Your task to perform on an android device: Show me popular videos on Youtube Image 0: 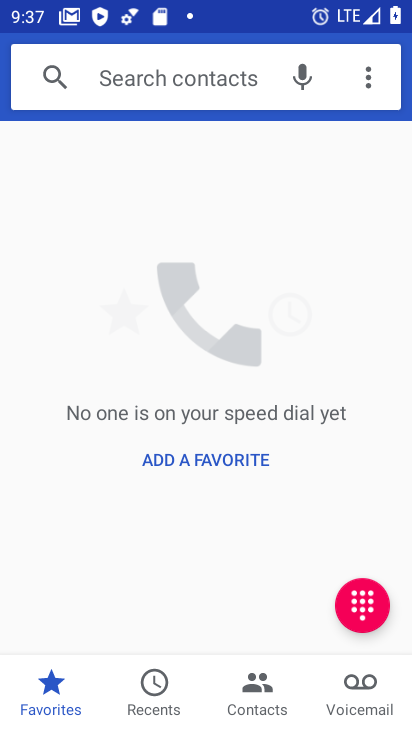
Step 0: press home button
Your task to perform on an android device: Show me popular videos on Youtube Image 1: 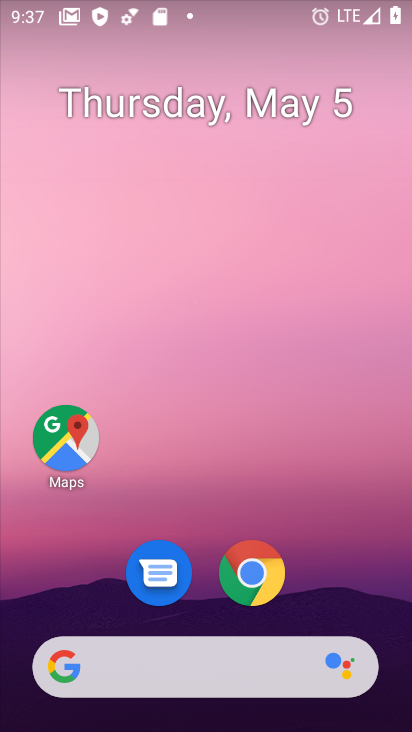
Step 1: drag from (224, 612) to (338, 10)
Your task to perform on an android device: Show me popular videos on Youtube Image 2: 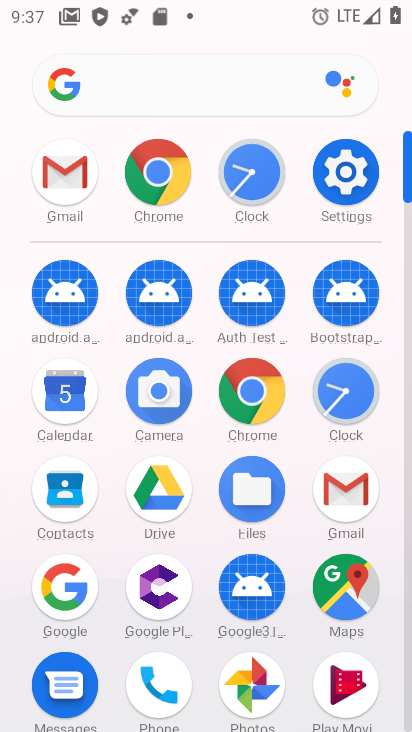
Step 2: drag from (224, 673) to (350, 9)
Your task to perform on an android device: Show me popular videos on Youtube Image 3: 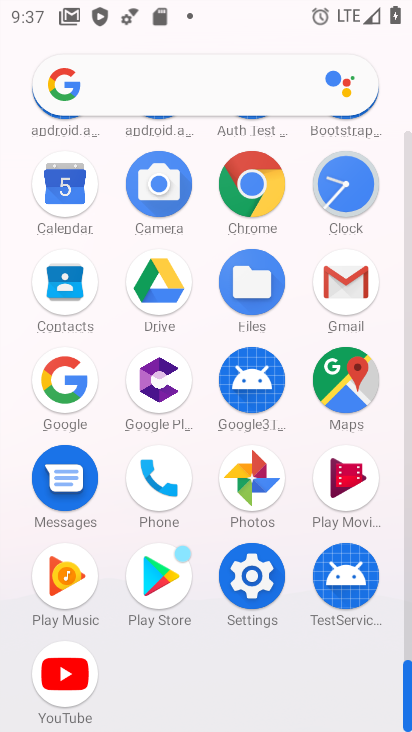
Step 3: click (48, 664)
Your task to perform on an android device: Show me popular videos on Youtube Image 4: 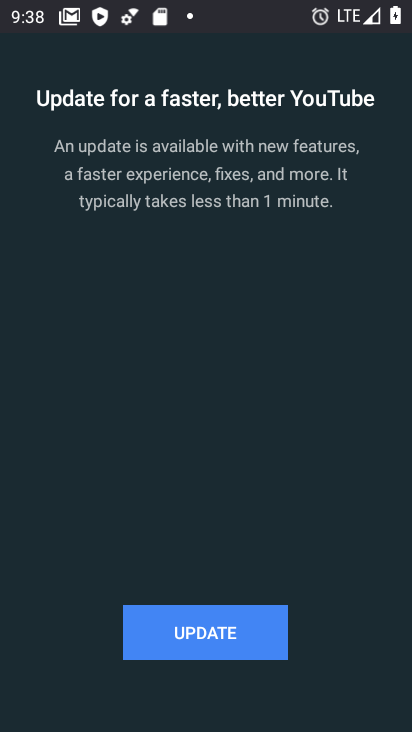
Step 4: click (224, 641)
Your task to perform on an android device: Show me popular videos on Youtube Image 5: 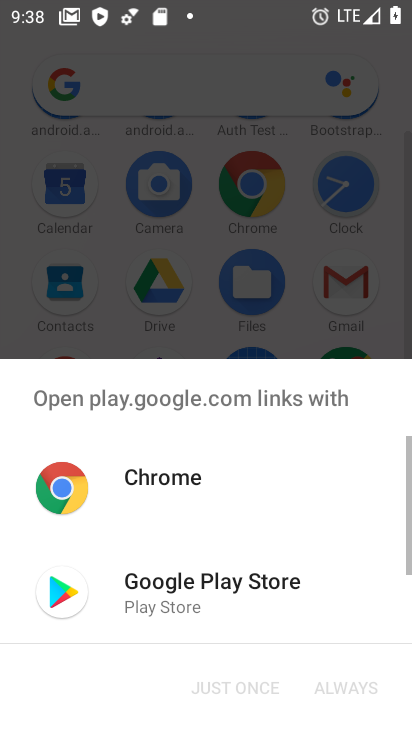
Step 5: click (171, 595)
Your task to perform on an android device: Show me popular videos on Youtube Image 6: 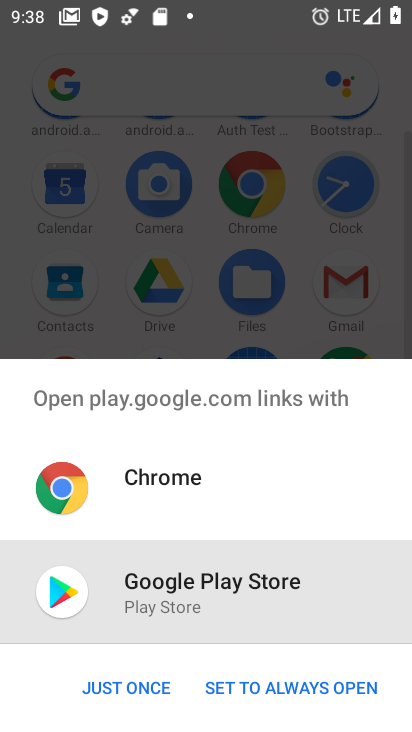
Step 6: click (101, 690)
Your task to perform on an android device: Show me popular videos on Youtube Image 7: 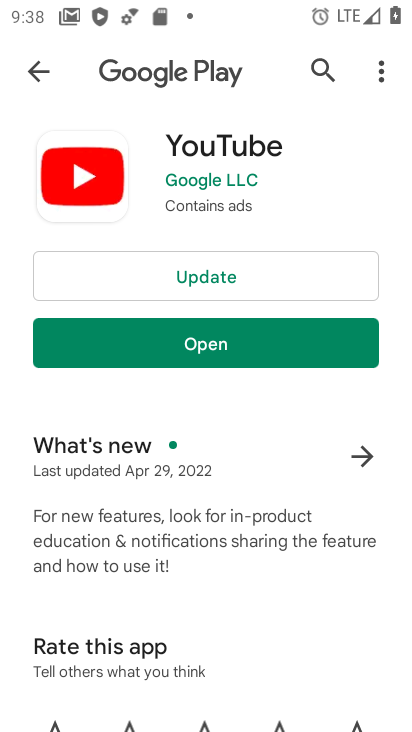
Step 7: click (206, 268)
Your task to perform on an android device: Show me popular videos on Youtube Image 8: 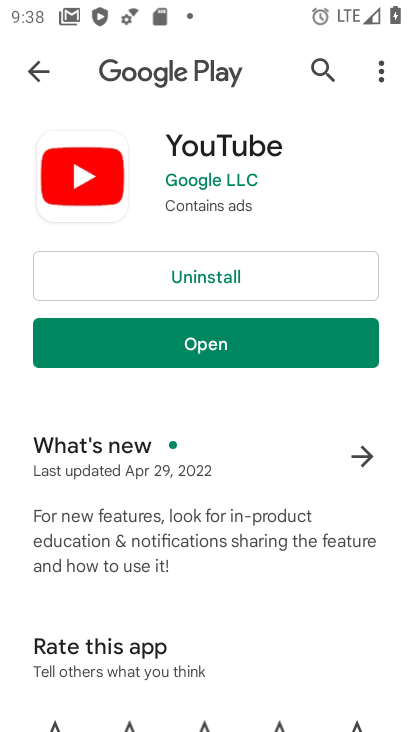
Step 8: click (188, 338)
Your task to perform on an android device: Show me popular videos on Youtube Image 9: 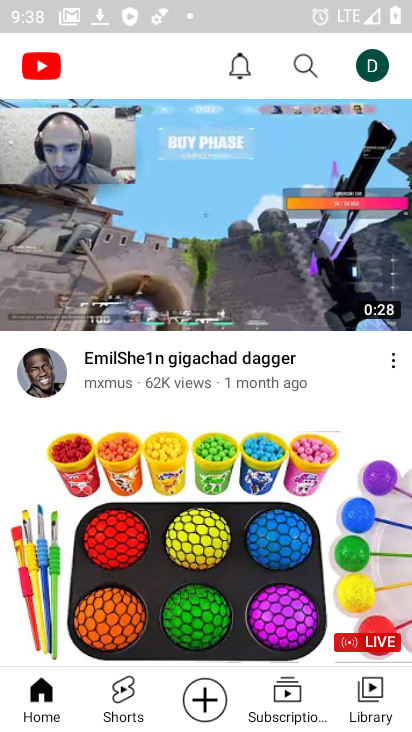
Step 9: drag from (267, 232) to (189, 674)
Your task to perform on an android device: Show me popular videos on Youtube Image 10: 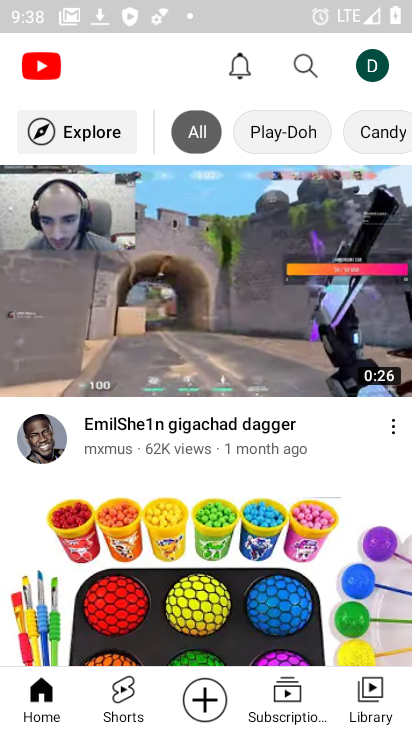
Step 10: click (91, 137)
Your task to perform on an android device: Show me popular videos on Youtube Image 11: 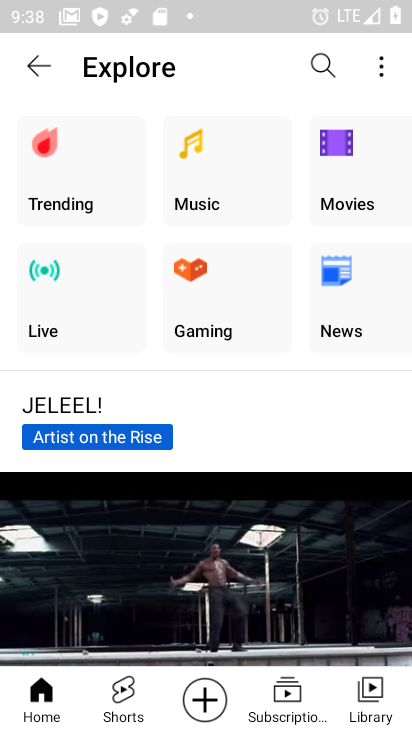
Step 11: click (84, 177)
Your task to perform on an android device: Show me popular videos on Youtube Image 12: 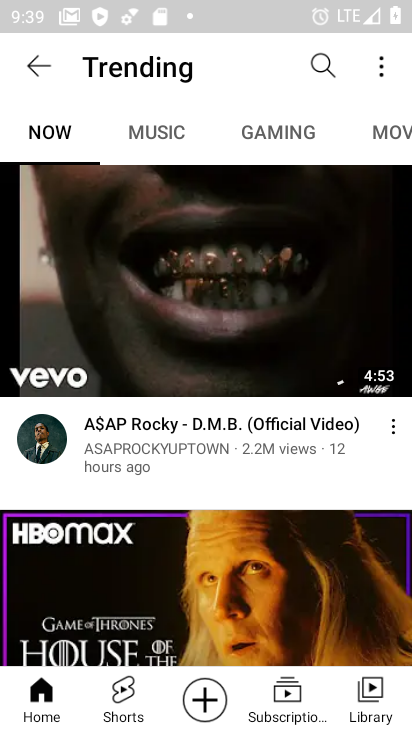
Step 12: task complete